Your task to perform on an android device: toggle improve location accuracy Image 0: 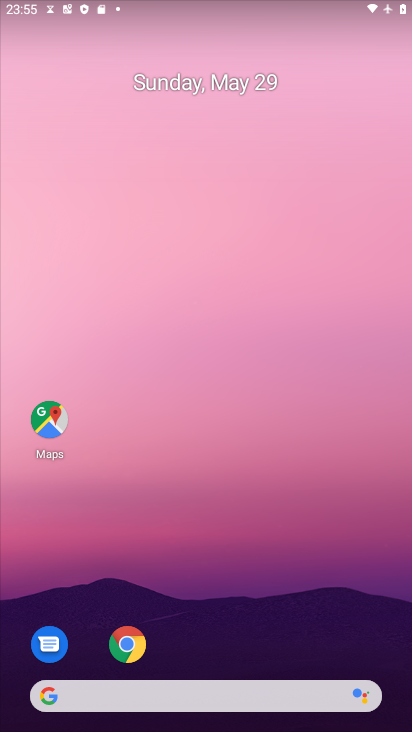
Step 0: drag from (270, 581) to (260, 194)
Your task to perform on an android device: toggle improve location accuracy Image 1: 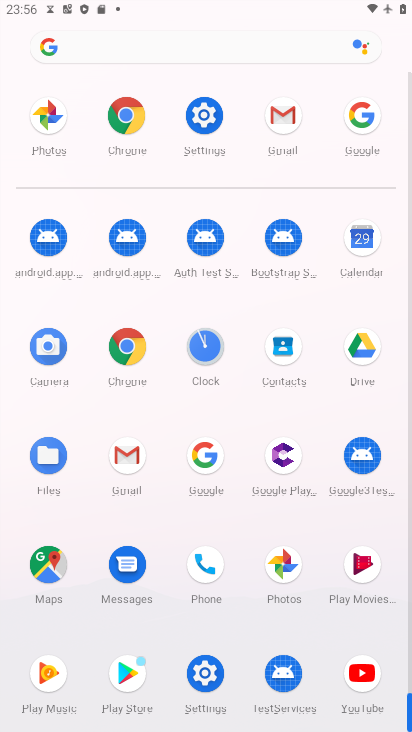
Step 1: click (200, 115)
Your task to perform on an android device: toggle improve location accuracy Image 2: 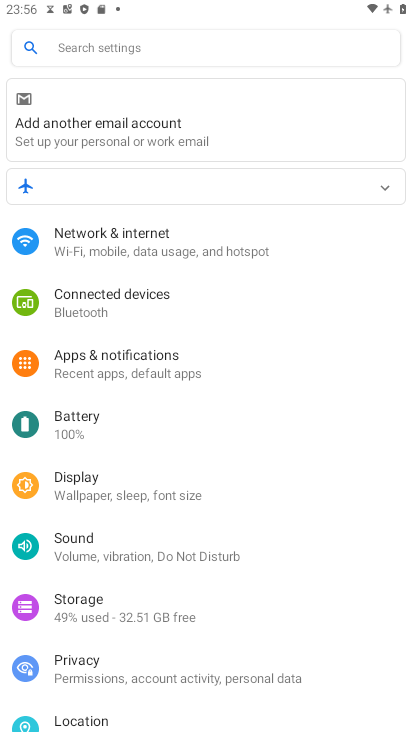
Step 2: drag from (241, 617) to (259, 299)
Your task to perform on an android device: toggle improve location accuracy Image 3: 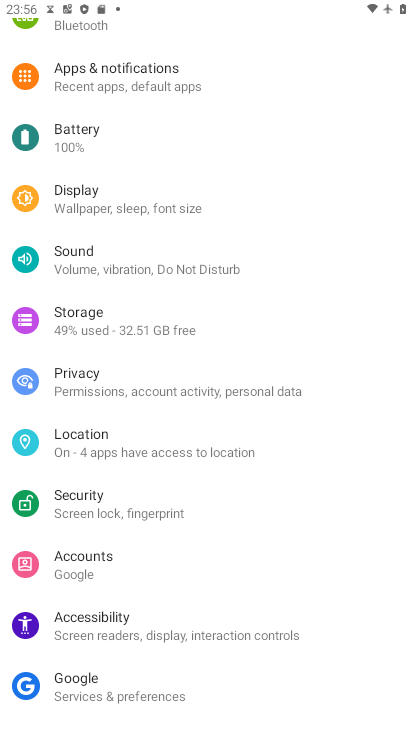
Step 3: click (140, 451)
Your task to perform on an android device: toggle improve location accuracy Image 4: 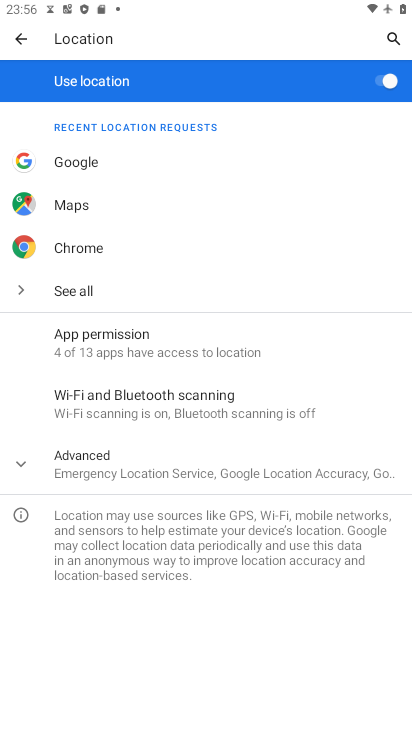
Step 4: click (379, 81)
Your task to perform on an android device: toggle improve location accuracy Image 5: 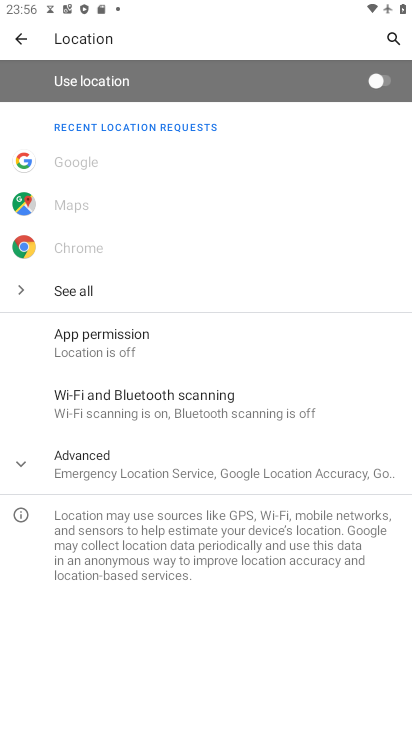
Step 5: task complete